Your task to perform on an android device: delete location history Image 0: 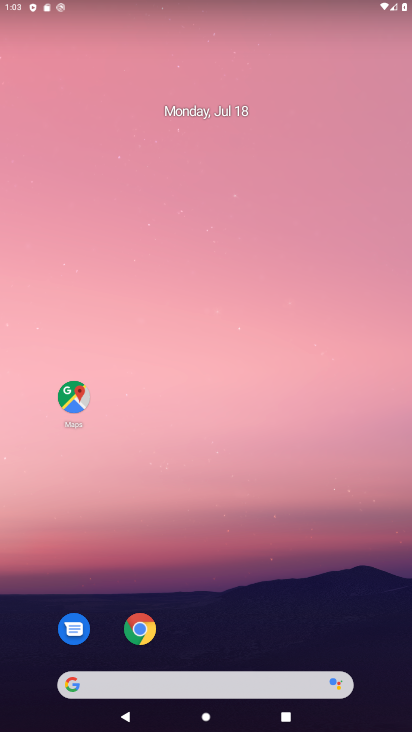
Step 0: click (173, 92)
Your task to perform on an android device: delete location history Image 1: 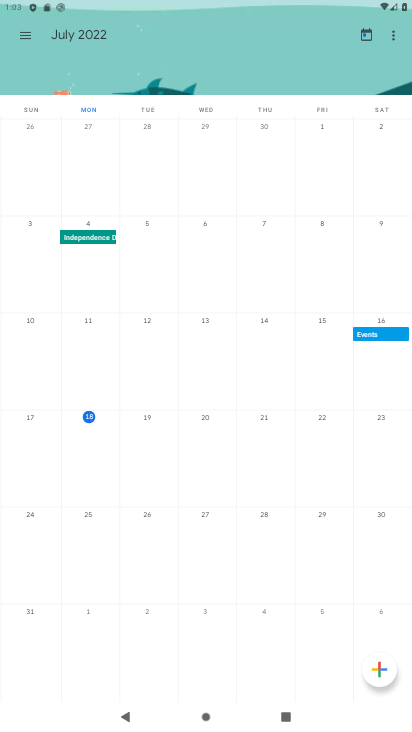
Step 1: press home button
Your task to perform on an android device: delete location history Image 2: 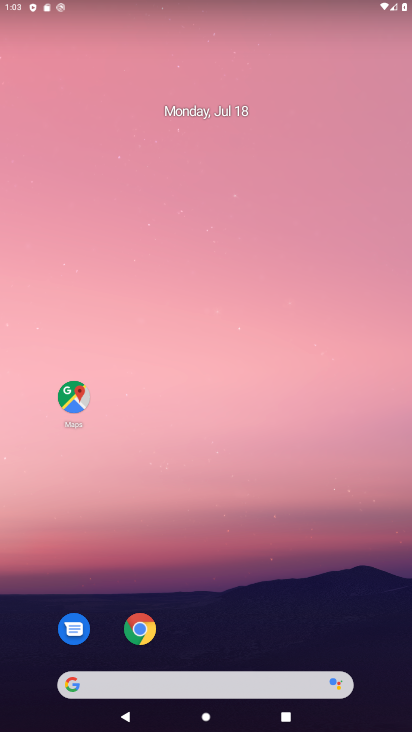
Step 2: drag from (180, 663) to (223, 237)
Your task to perform on an android device: delete location history Image 3: 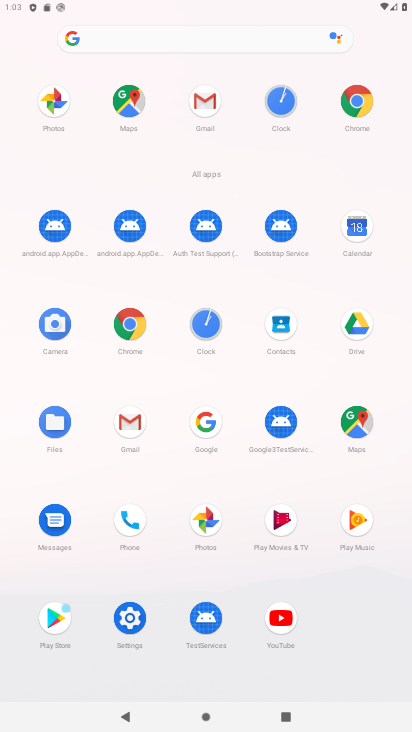
Step 3: click (141, 624)
Your task to perform on an android device: delete location history Image 4: 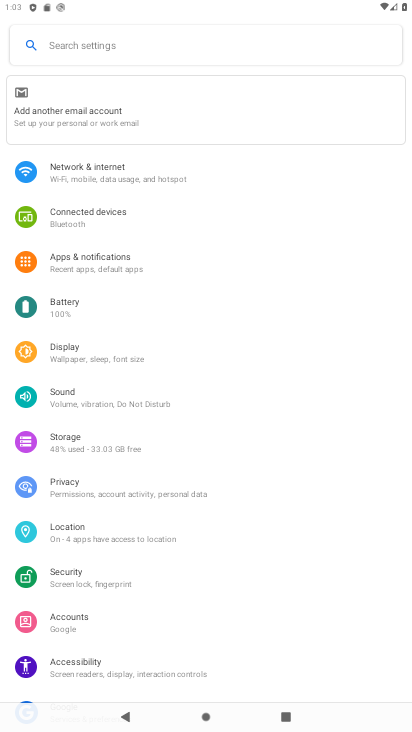
Step 4: click (92, 532)
Your task to perform on an android device: delete location history Image 5: 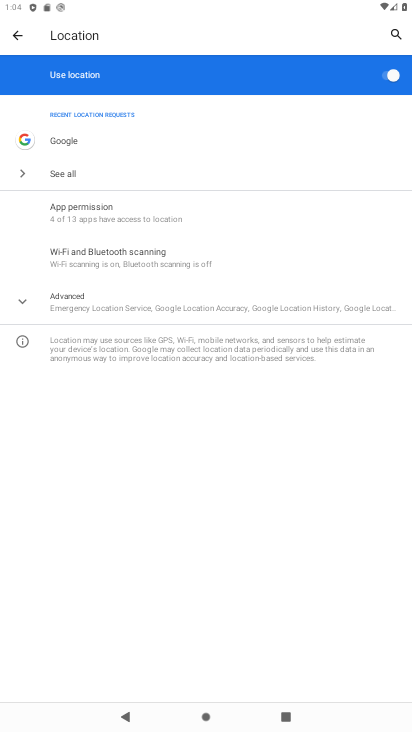
Step 5: click (138, 299)
Your task to perform on an android device: delete location history Image 6: 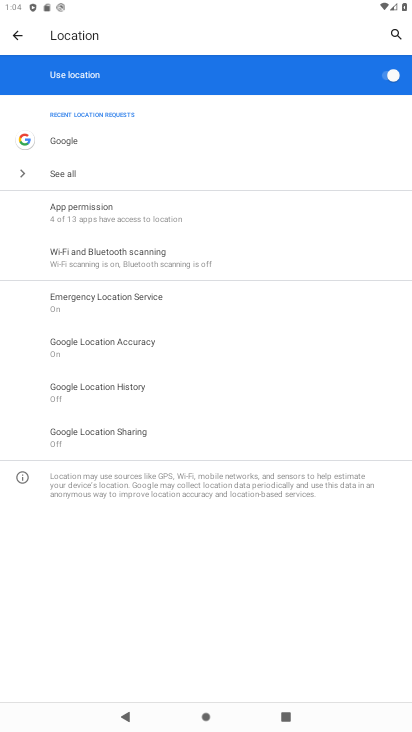
Step 6: click (102, 381)
Your task to perform on an android device: delete location history Image 7: 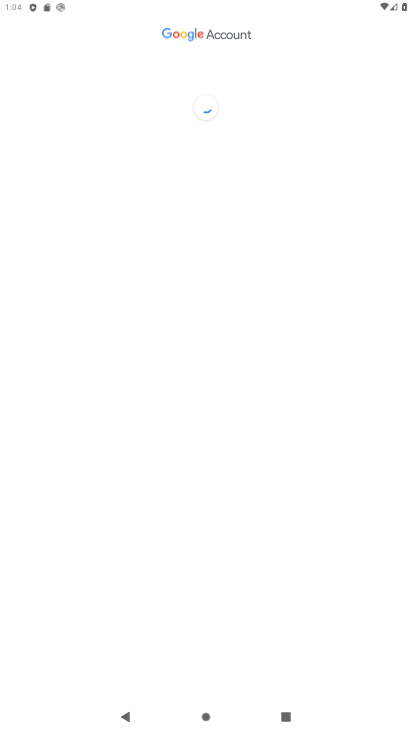
Step 7: press home button
Your task to perform on an android device: delete location history Image 8: 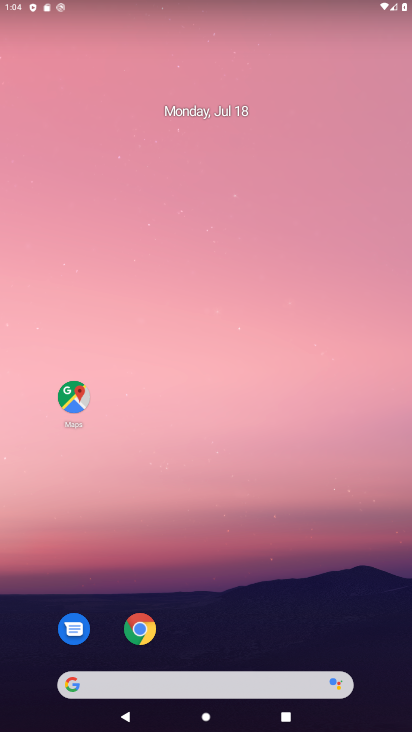
Step 8: click (62, 407)
Your task to perform on an android device: delete location history Image 9: 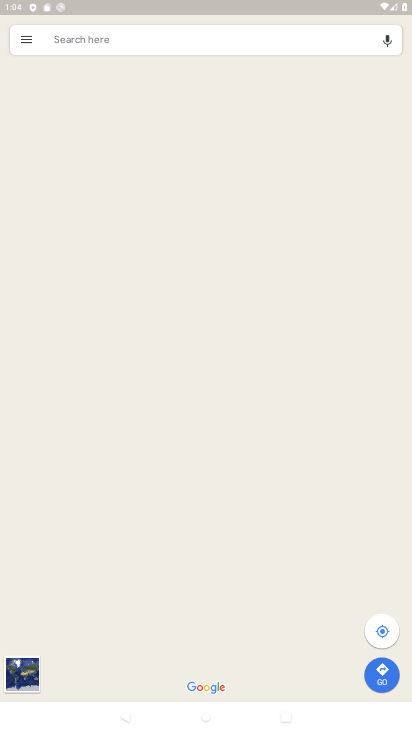
Step 9: click (26, 41)
Your task to perform on an android device: delete location history Image 10: 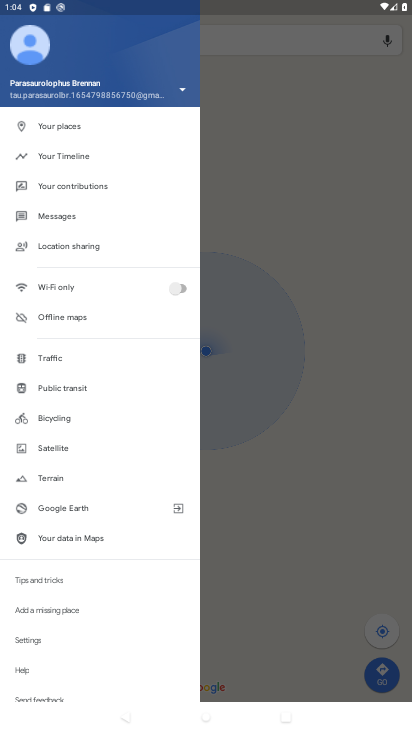
Step 10: click (80, 164)
Your task to perform on an android device: delete location history Image 11: 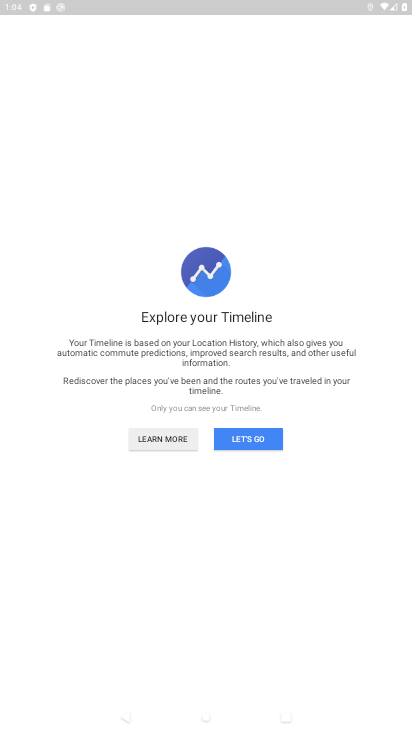
Step 11: click (258, 449)
Your task to perform on an android device: delete location history Image 12: 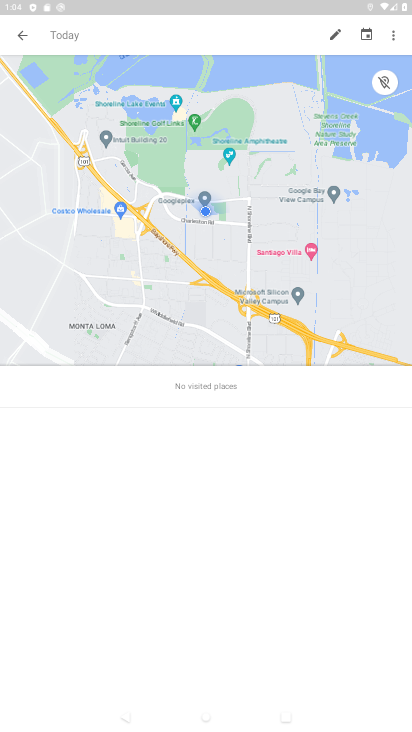
Step 12: click (394, 43)
Your task to perform on an android device: delete location history Image 13: 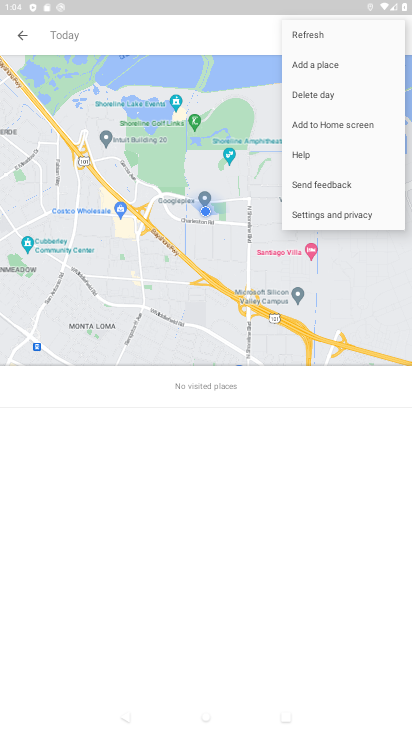
Step 13: click (342, 217)
Your task to perform on an android device: delete location history Image 14: 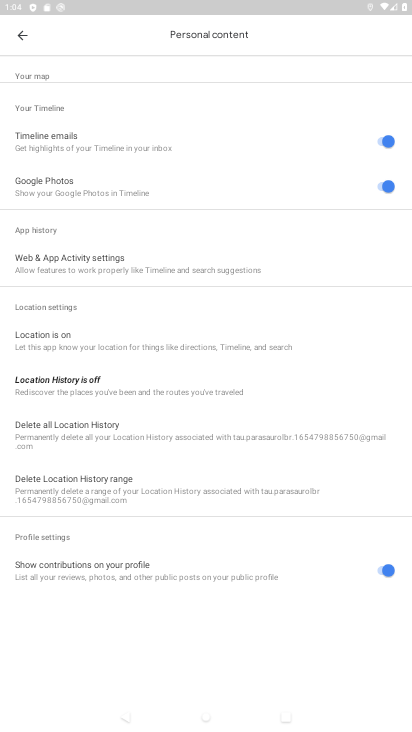
Step 14: click (83, 428)
Your task to perform on an android device: delete location history Image 15: 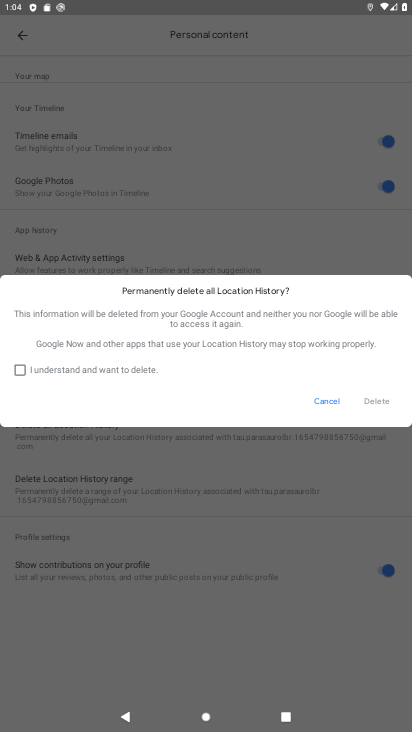
Step 15: click (25, 369)
Your task to perform on an android device: delete location history Image 16: 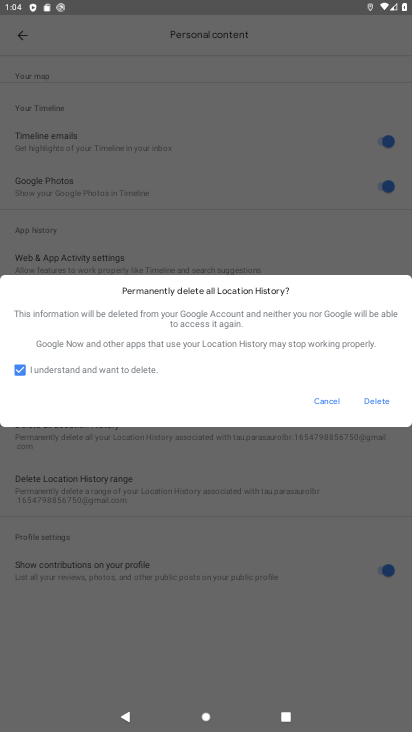
Step 16: click (383, 406)
Your task to perform on an android device: delete location history Image 17: 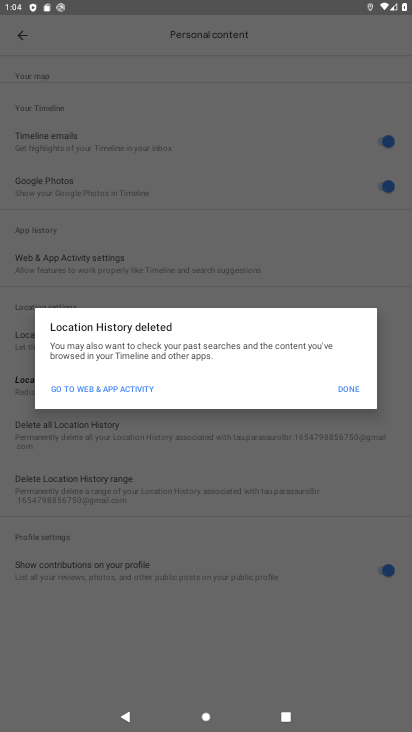
Step 17: click (350, 396)
Your task to perform on an android device: delete location history Image 18: 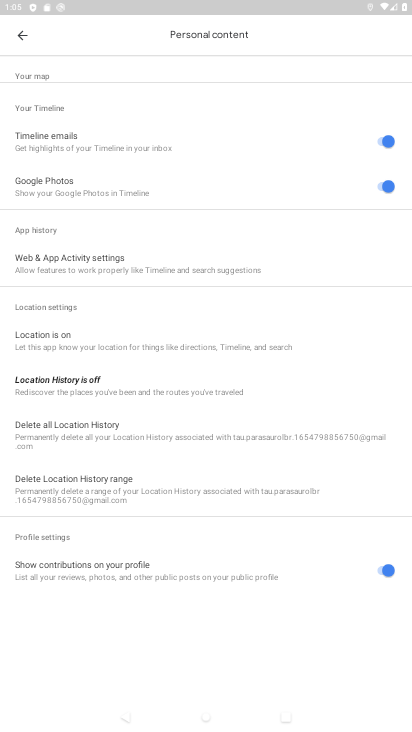
Step 18: task complete